Your task to perform on an android device: change notifications settings Image 0: 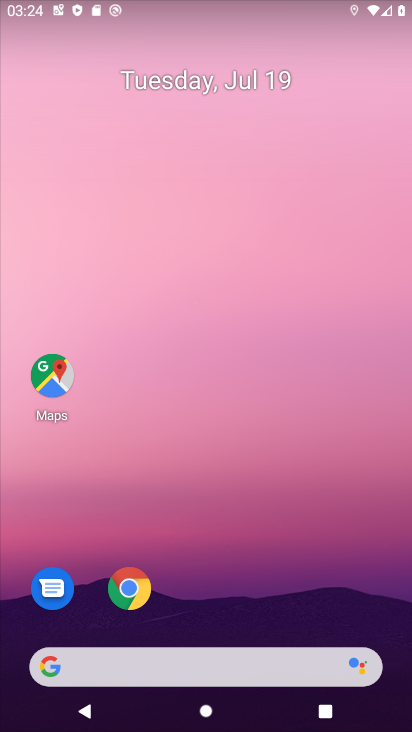
Step 0: drag from (270, 560) to (212, 23)
Your task to perform on an android device: change notifications settings Image 1: 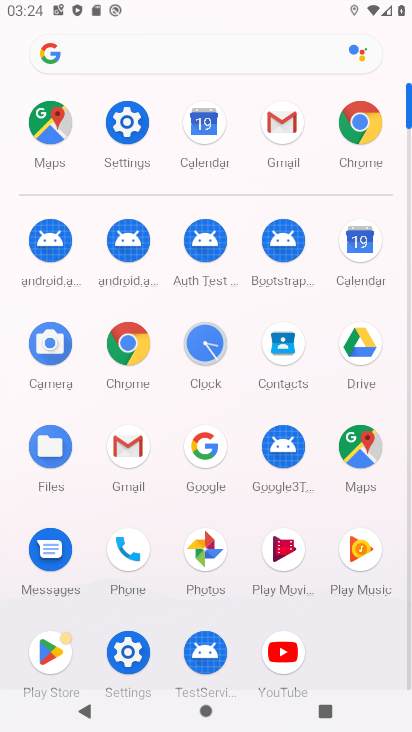
Step 1: click (135, 127)
Your task to perform on an android device: change notifications settings Image 2: 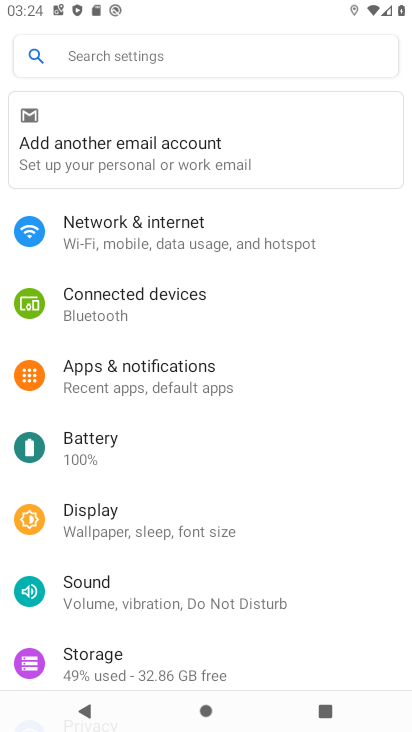
Step 2: click (145, 359)
Your task to perform on an android device: change notifications settings Image 3: 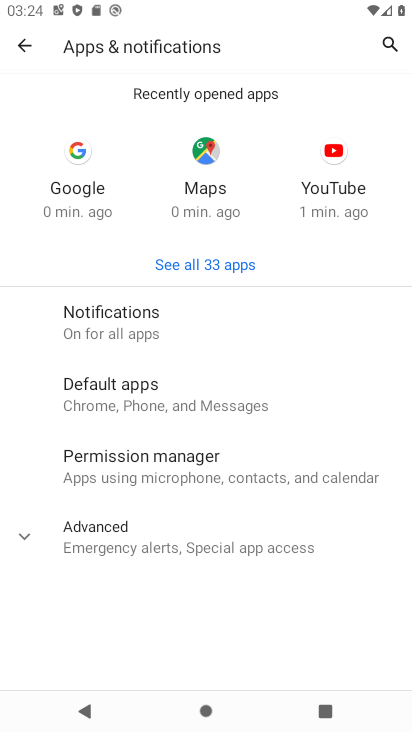
Step 3: click (133, 314)
Your task to perform on an android device: change notifications settings Image 4: 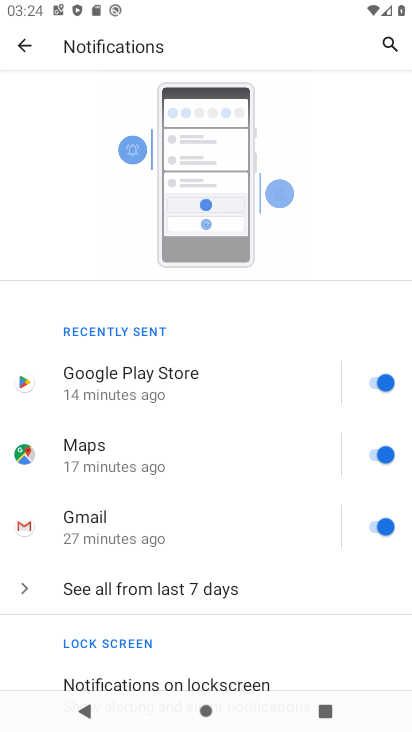
Step 4: click (125, 597)
Your task to perform on an android device: change notifications settings Image 5: 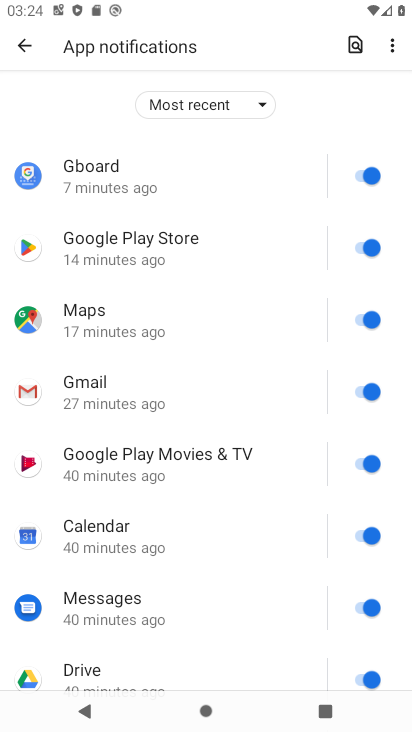
Step 5: click (264, 104)
Your task to perform on an android device: change notifications settings Image 6: 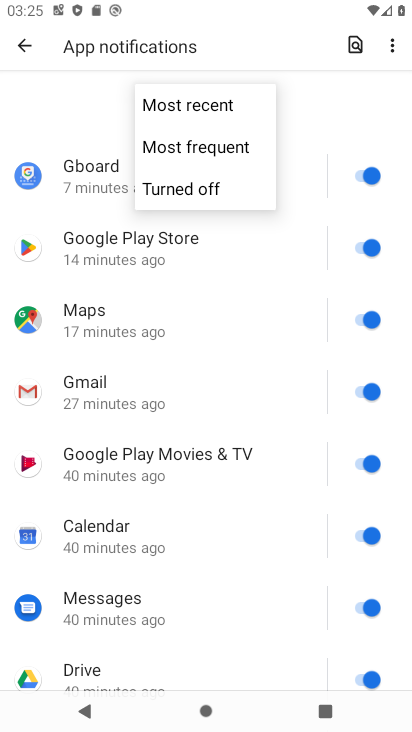
Step 6: click (203, 190)
Your task to perform on an android device: change notifications settings Image 7: 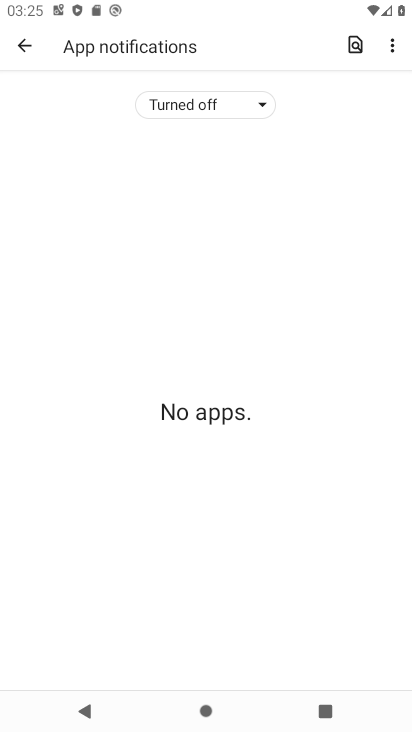
Step 7: task complete